Your task to perform on an android device: Search for usb-c on target.com, select the first entry, and add it to the cart. Image 0: 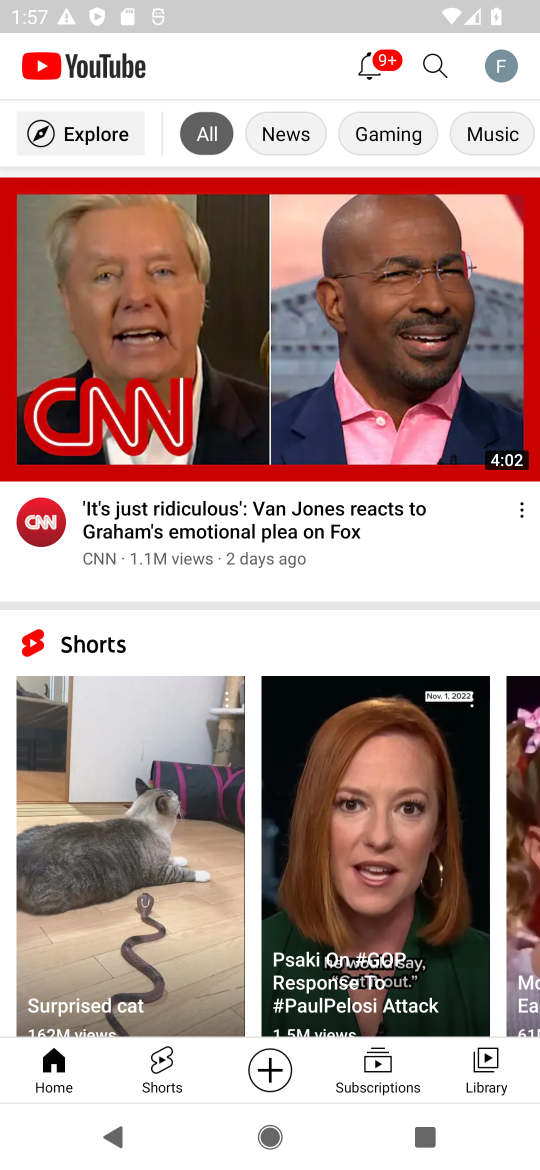
Step 0: press home button
Your task to perform on an android device: Search for usb-c on target.com, select the first entry, and add it to the cart. Image 1: 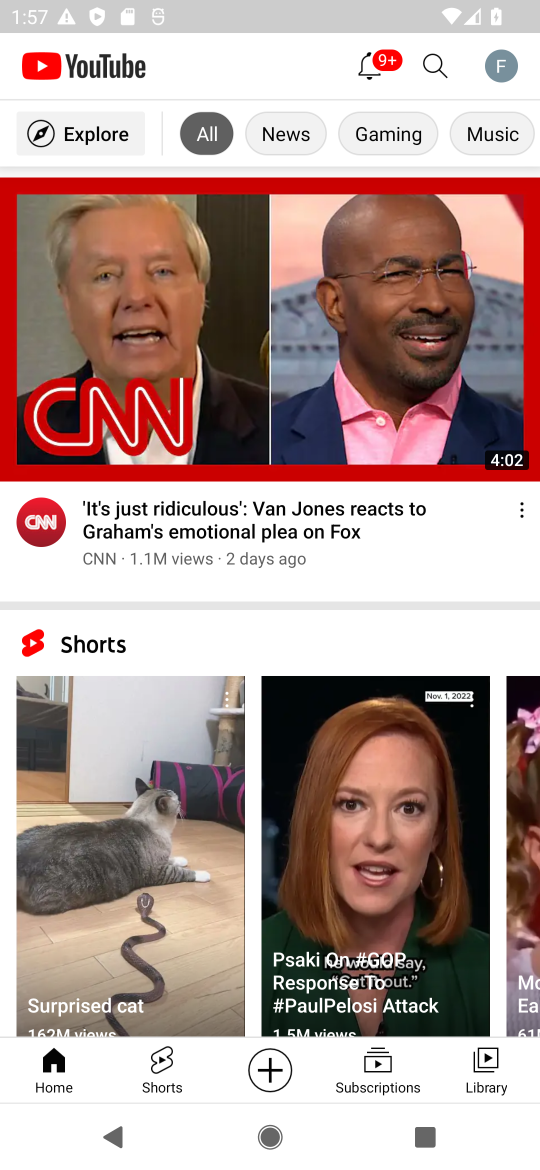
Step 1: press home button
Your task to perform on an android device: Search for usb-c on target.com, select the first entry, and add it to the cart. Image 2: 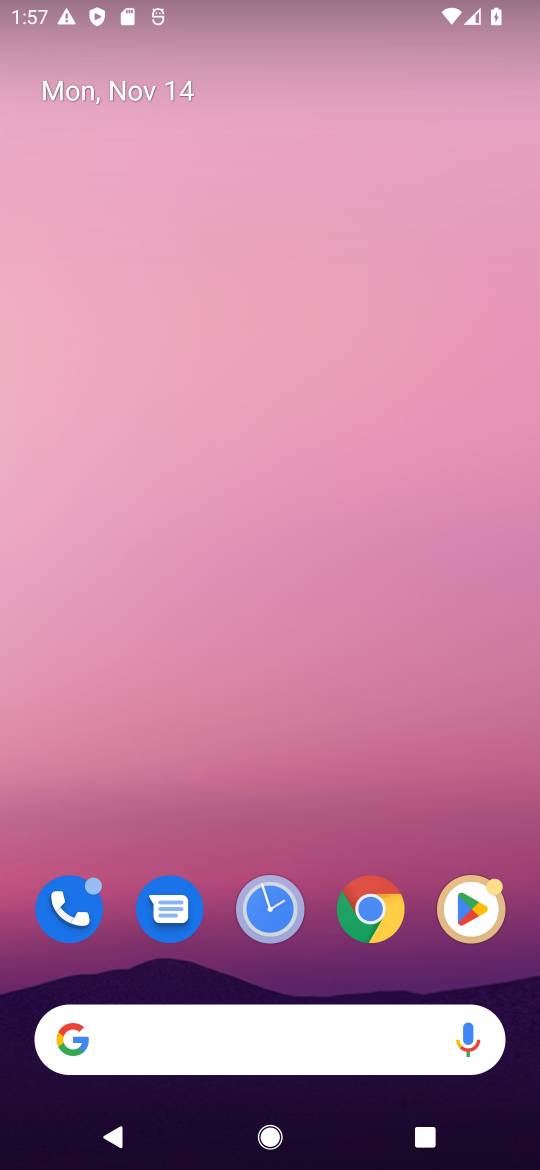
Step 2: drag from (331, 973) to (489, 5)
Your task to perform on an android device: Search for usb-c on target.com, select the first entry, and add it to the cart. Image 3: 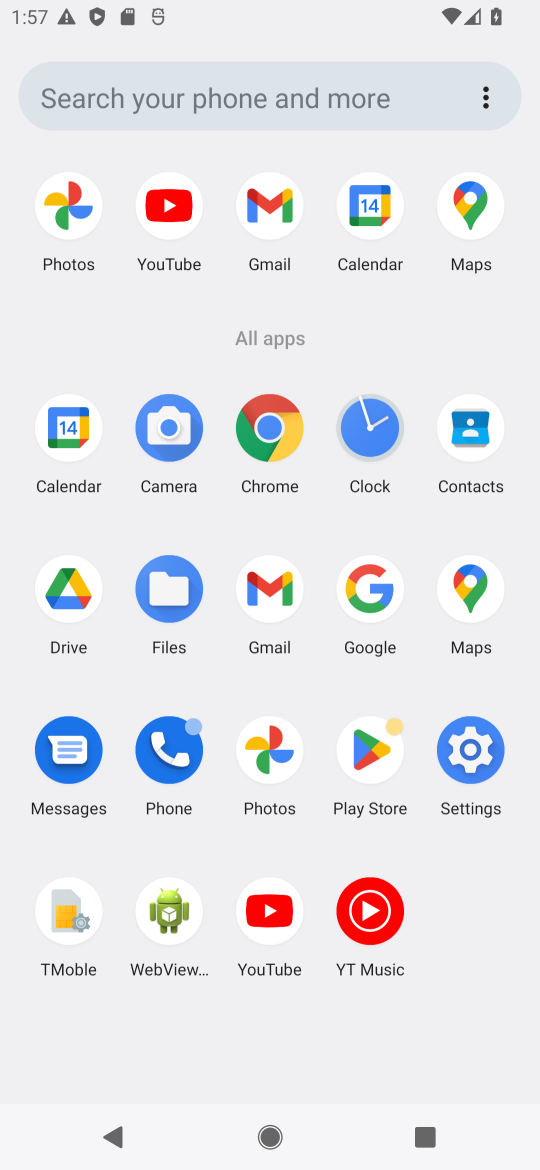
Step 3: click (276, 426)
Your task to perform on an android device: Search for usb-c on target.com, select the first entry, and add it to the cart. Image 4: 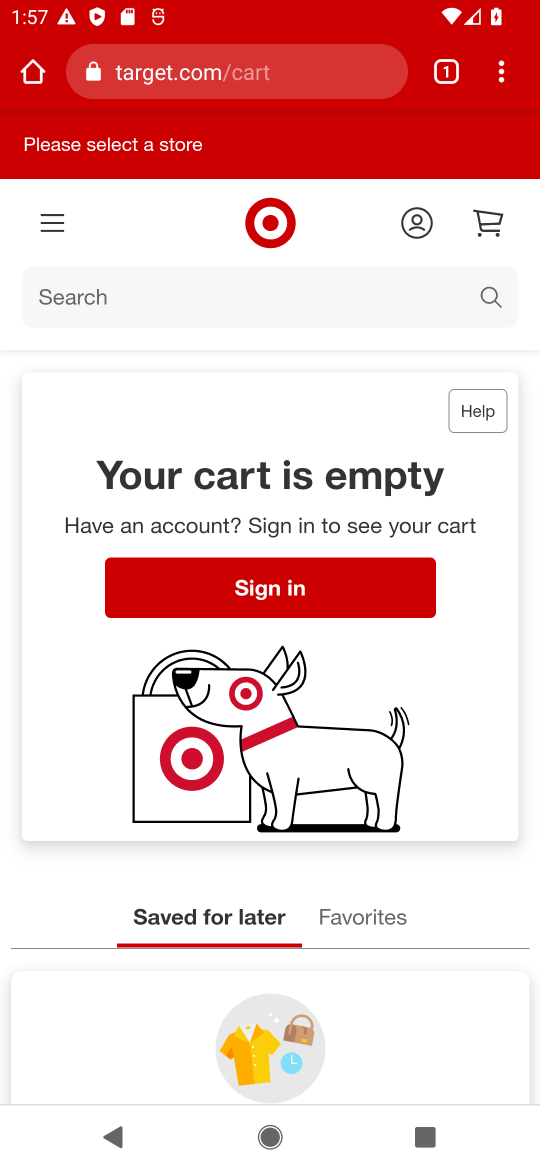
Step 4: click (261, 84)
Your task to perform on an android device: Search for usb-c on target.com, select the first entry, and add it to the cart. Image 5: 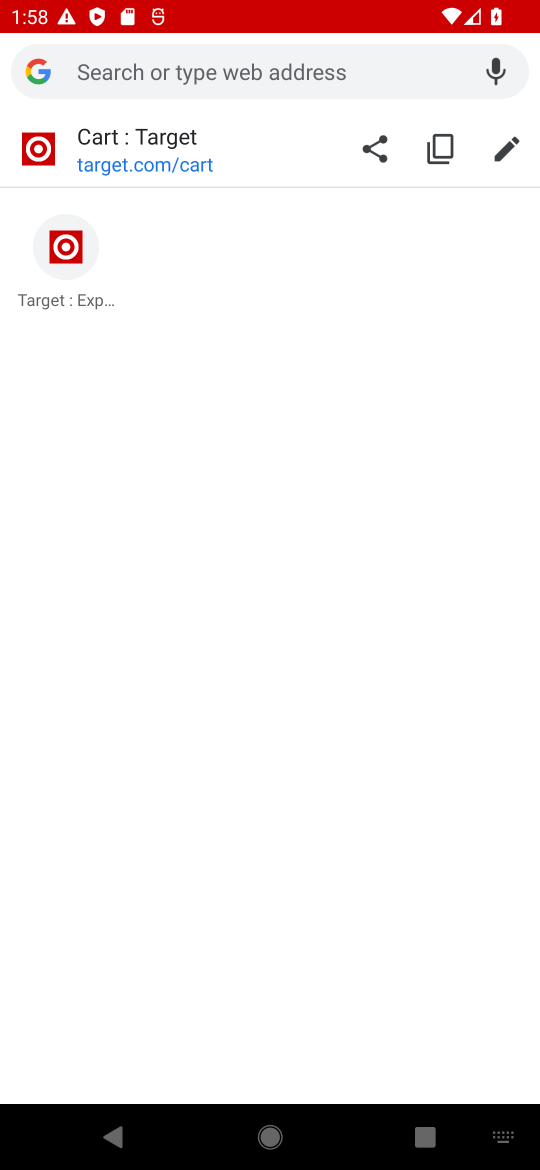
Step 5: type "target.com"
Your task to perform on an android device: Search for usb-c on target.com, select the first entry, and add it to the cart. Image 6: 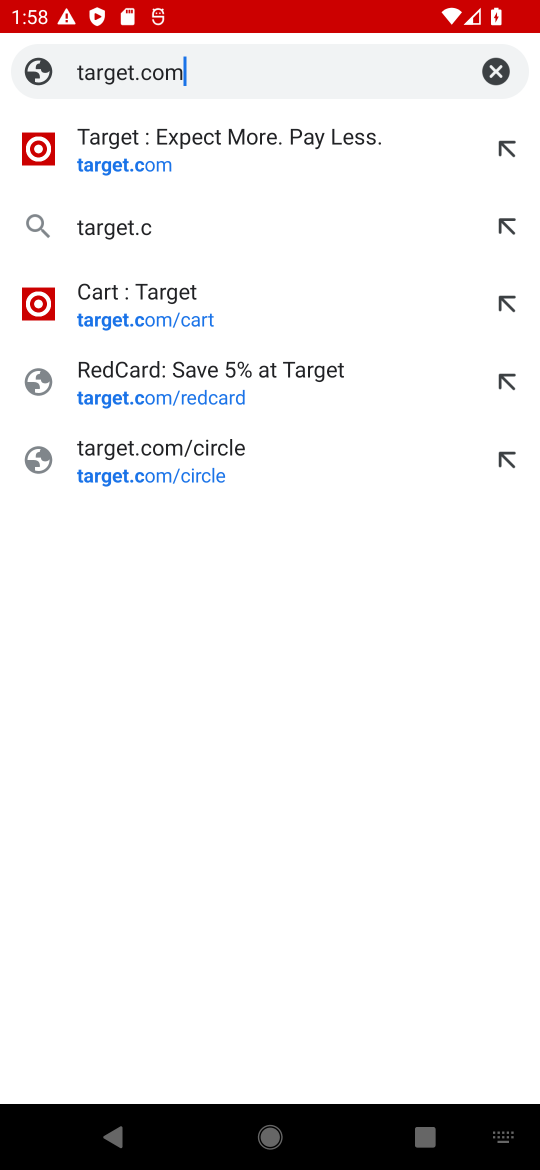
Step 6: press enter
Your task to perform on an android device: Search for usb-c on target.com, select the first entry, and add it to the cart. Image 7: 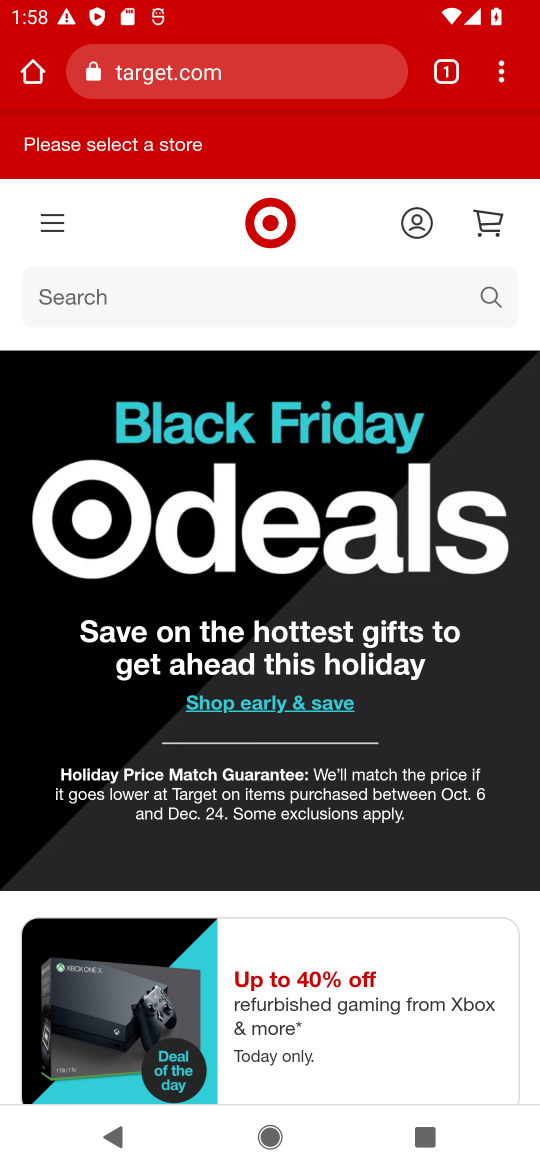
Step 7: click (168, 308)
Your task to perform on an android device: Search for usb-c on target.com, select the first entry, and add it to the cart. Image 8: 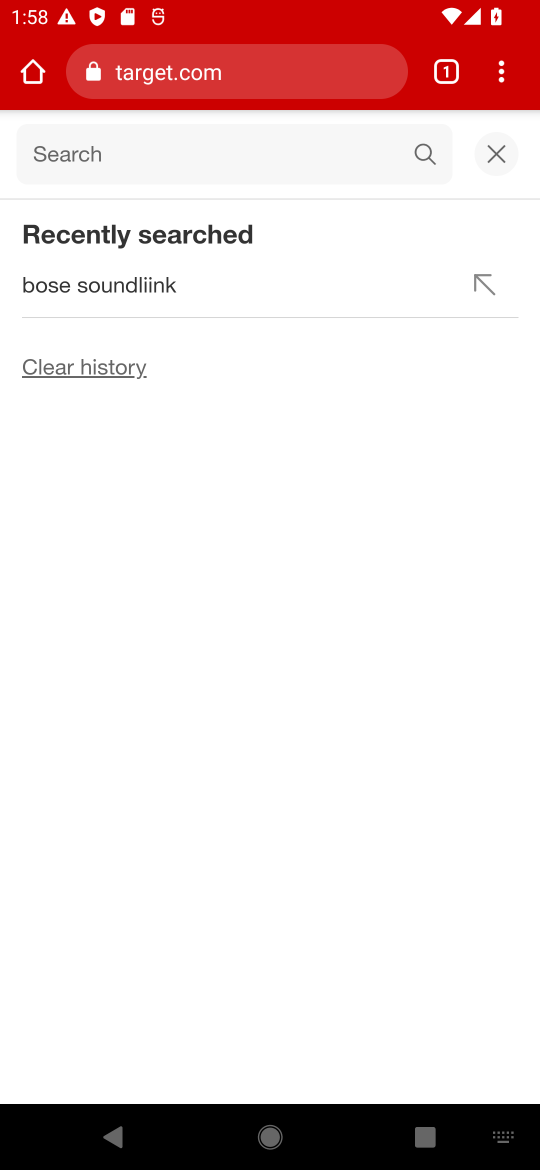
Step 8: type "usb-c"
Your task to perform on an android device: Search for usb-c on target.com, select the first entry, and add it to the cart. Image 9: 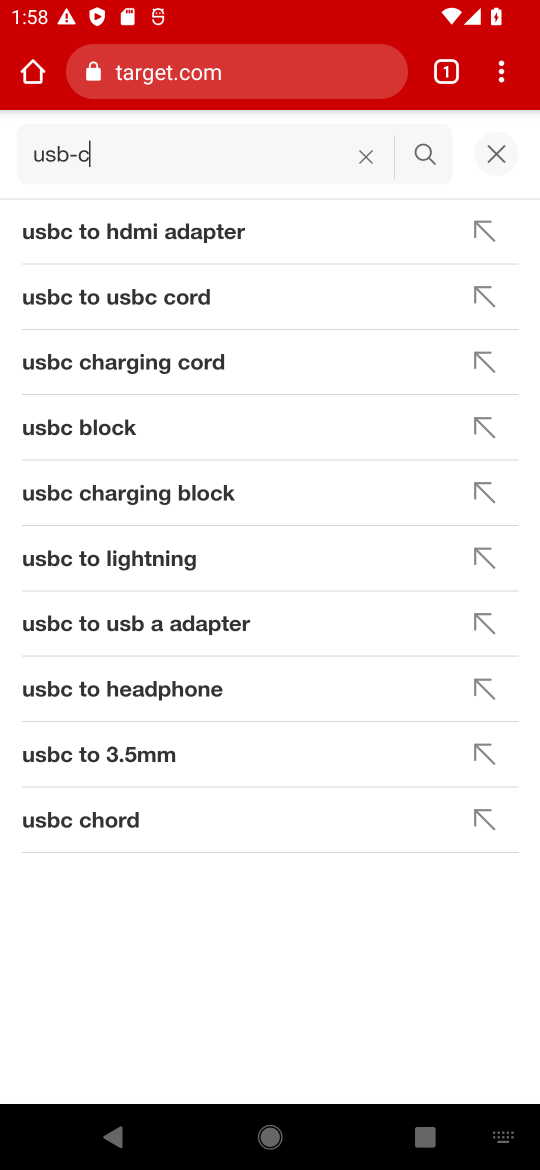
Step 9: press enter
Your task to perform on an android device: Search for usb-c on target.com, select the first entry, and add it to the cart. Image 10: 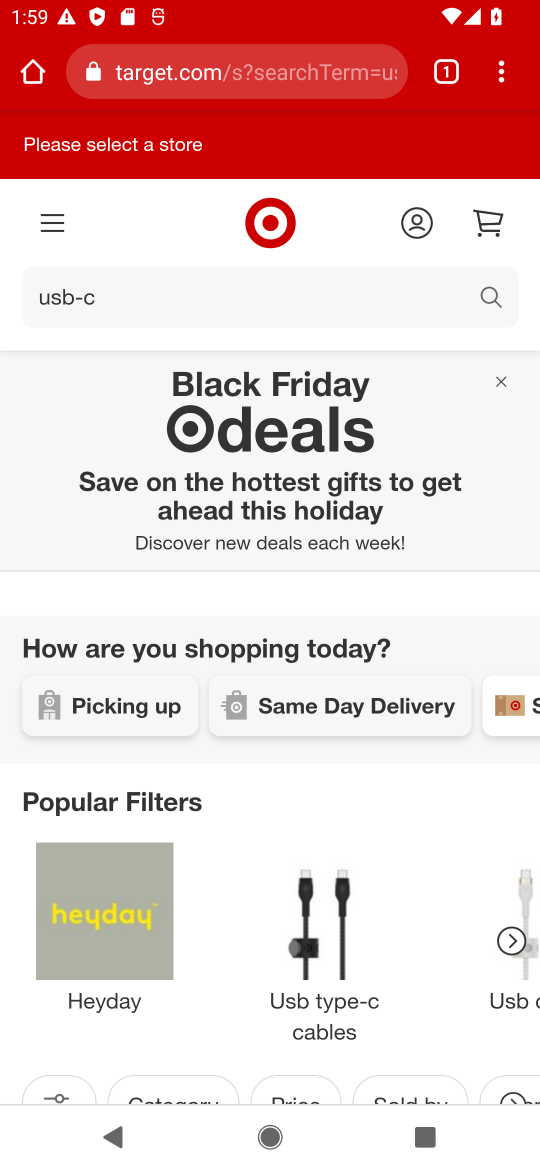
Step 10: drag from (279, 892) to (262, 134)
Your task to perform on an android device: Search for usb-c on target.com, select the first entry, and add it to the cart. Image 11: 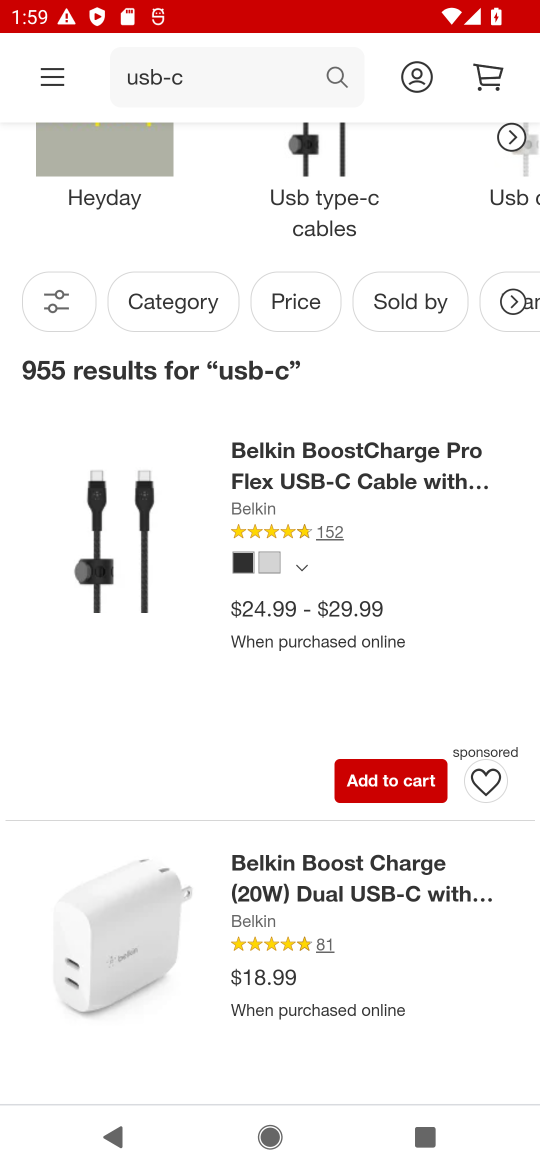
Step 11: click (377, 784)
Your task to perform on an android device: Search for usb-c on target.com, select the first entry, and add it to the cart. Image 12: 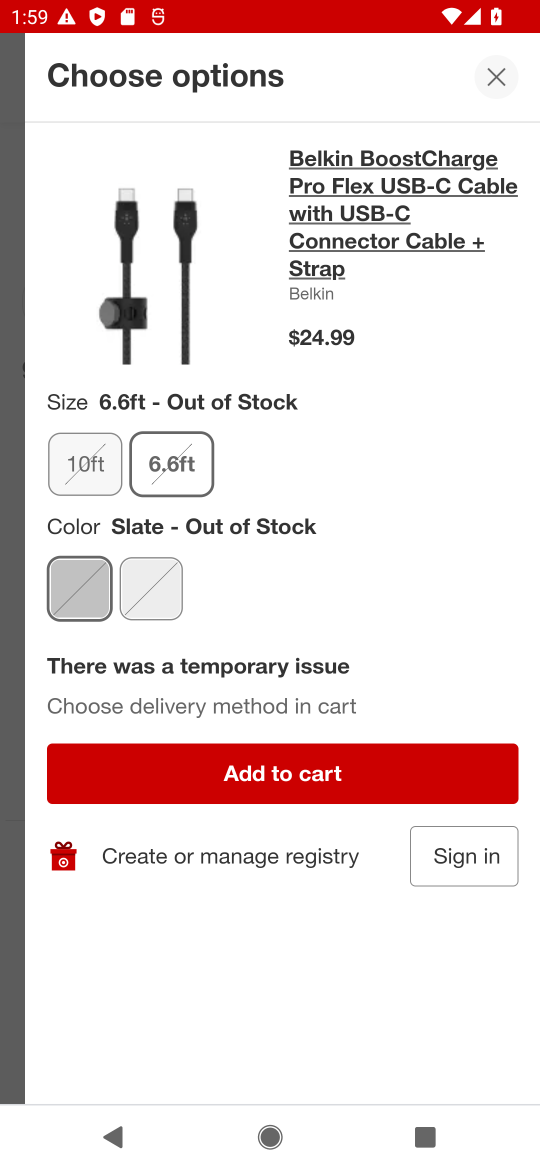
Step 12: click (377, 784)
Your task to perform on an android device: Search for usb-c on target.com, select the first entry, and add it to the cart. Image 13: 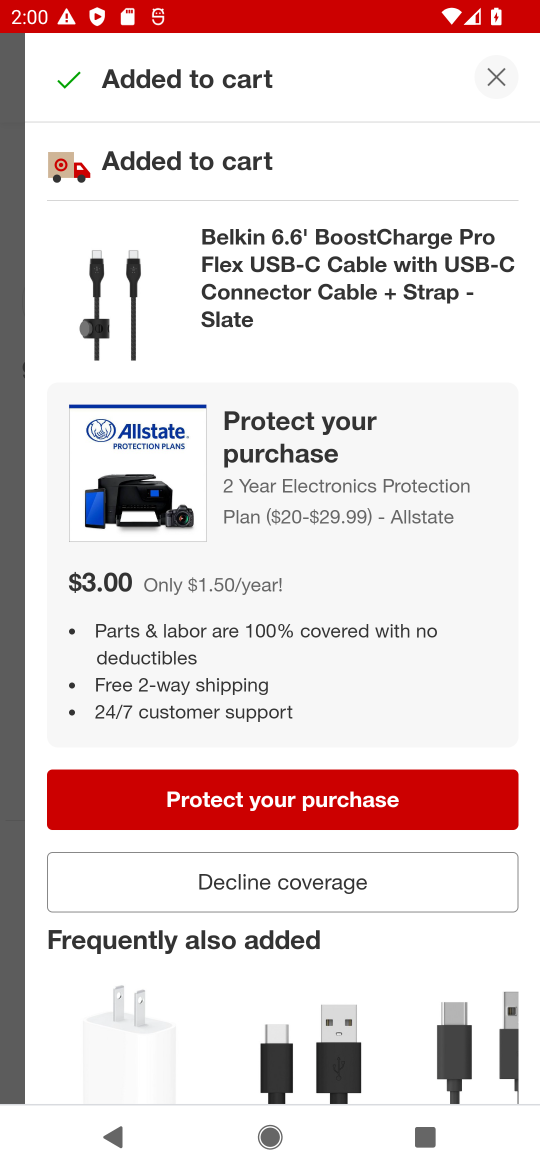
Step 13: task complete